Your task to perform on an android device: toggle wifi Image 0: 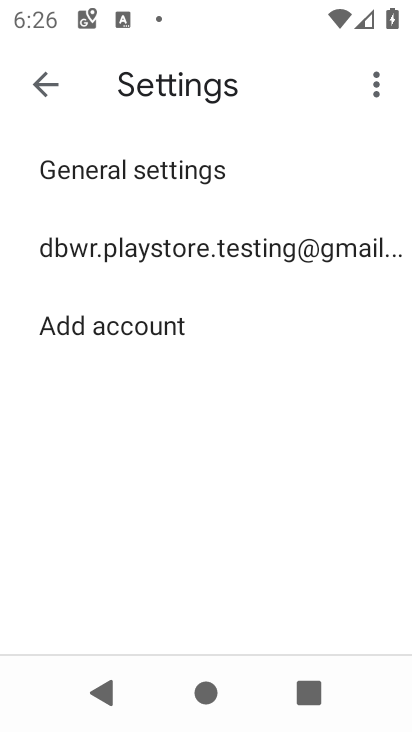
Step 0: press home button
Your task to perform on an android device: toggle wifi Image 1: 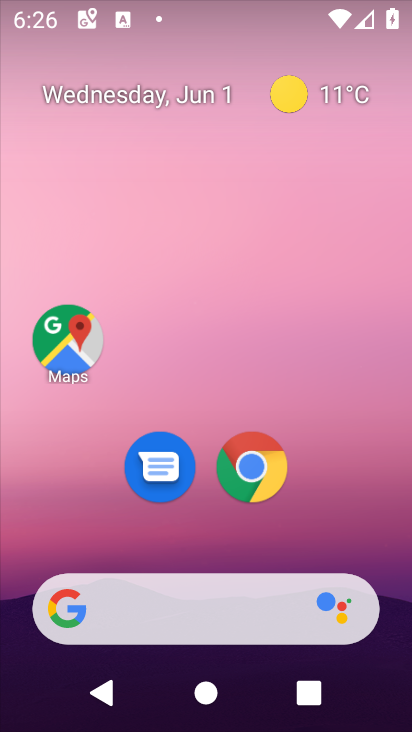
Step 1: drag from (322, 516) to (149, 0)
Your task to perform on an android device: toggle wifi Image 2: 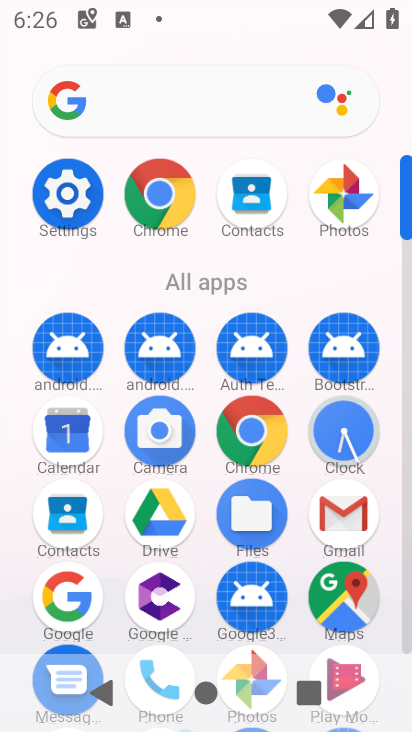
Step 2: click (85, 195)
Your task to perform on an android device: toggle wifi Image 3: 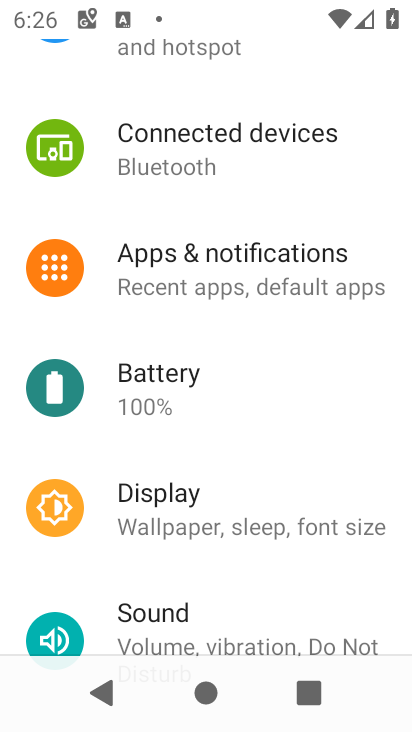
Step 3: drag from (288, 172) to (132, 724)
Your task to perform on an android device: toggle wifi Image 4: 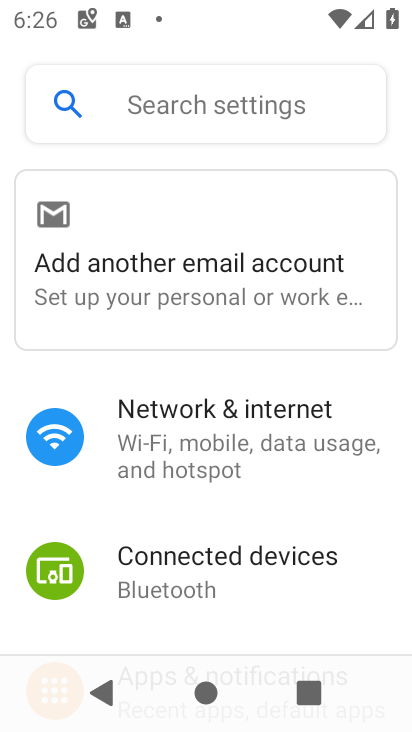
Step 4: click (183, 400)
Your task to perform on an android device: toggle wifi Image 5: 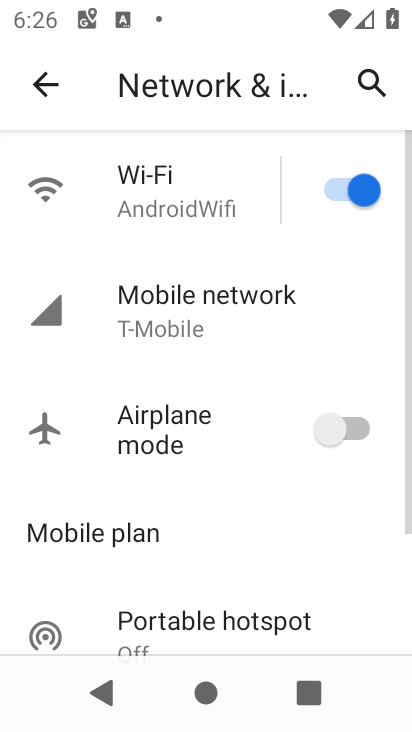
Step 5: click (375, 184)
Your task to perform on an android device: toggle wifi Image 6: 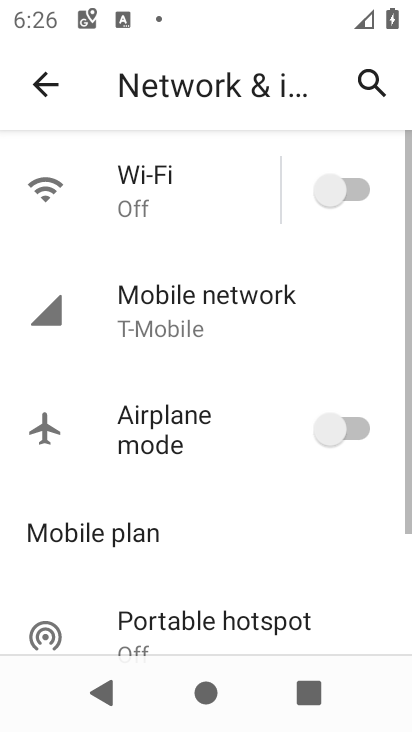
Step 6: task complete